Your task to perform on an android device: Go to battery settings Image 0: 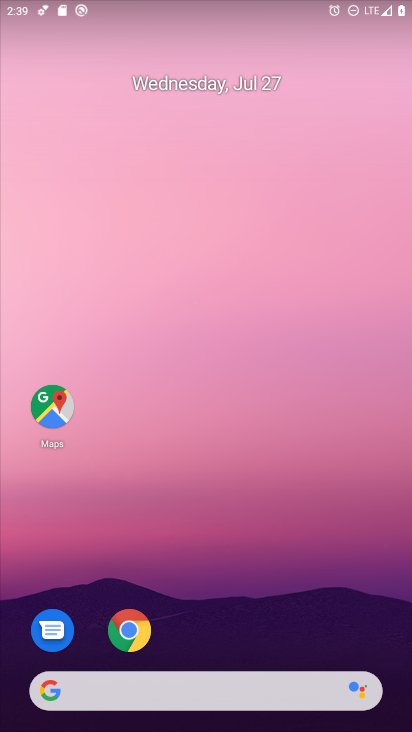
Step 0: drag from (377, 646) to (332, 111)
Your task to perform on an android device: Go to battery settings Image 1: 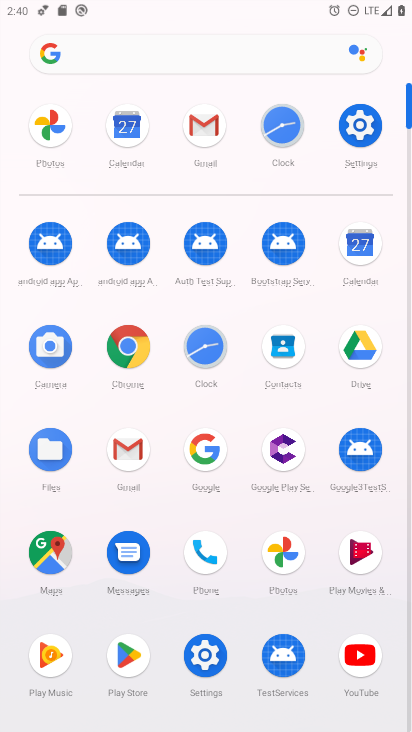
Step 1: click (206, 658)
Your task to perform on an android device: Go to battery settings Image 2: 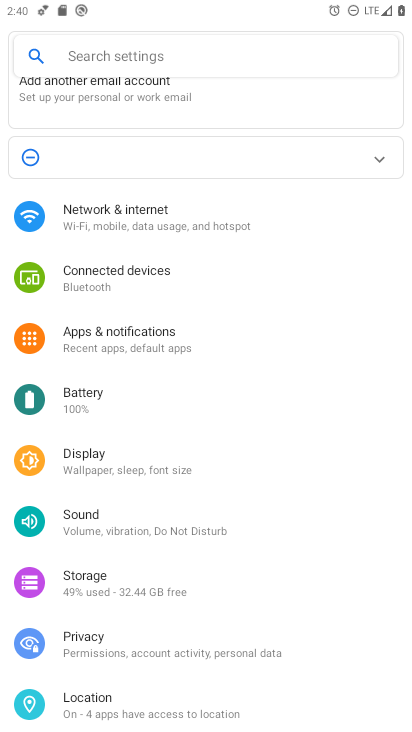
Step 2: click (87, 396)
Your task to perform on an android device: Go to battery settings Image 3: 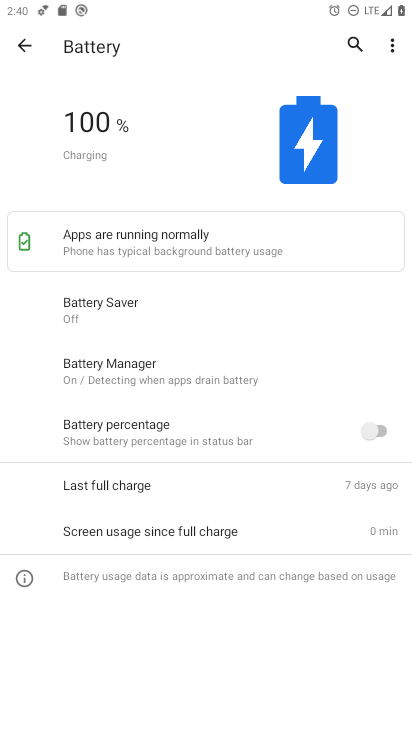
Step 3: task complete